Your task to perform on an android device: Search for Italian restaurants on Maps Image 0: 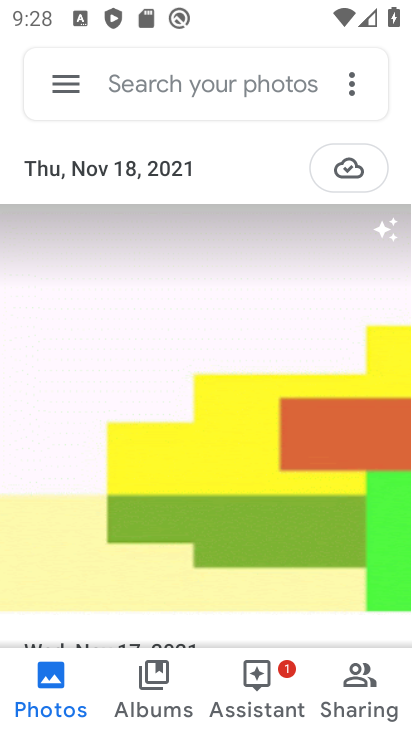
Step 0: press home button
Your task to perform on an android device: Search for Italian restaurants on Maps Image 1: 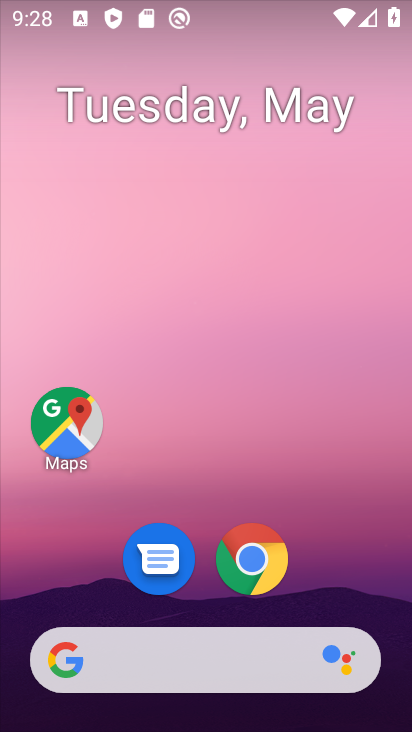
Step 1: click (92, 430)
Your task to perform on an android device: Search for Italian restaurants on Maps Image 2: 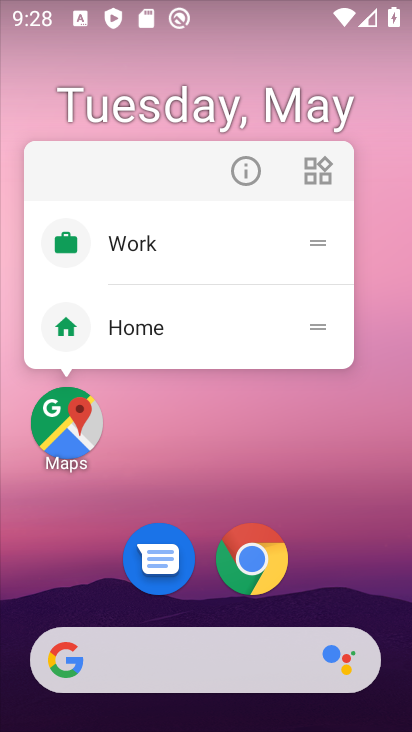
Step 2: click (85, 434)
Your task to perform on an android device: Search for Italian restaurants on Maps Image 3: 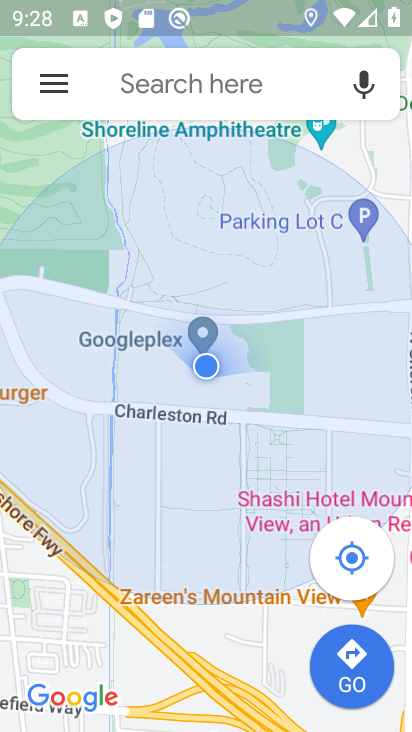
Step 3: click (258, 99)
Your task to perform on an android device: Search for Italian restaurants on Maps Image 4: 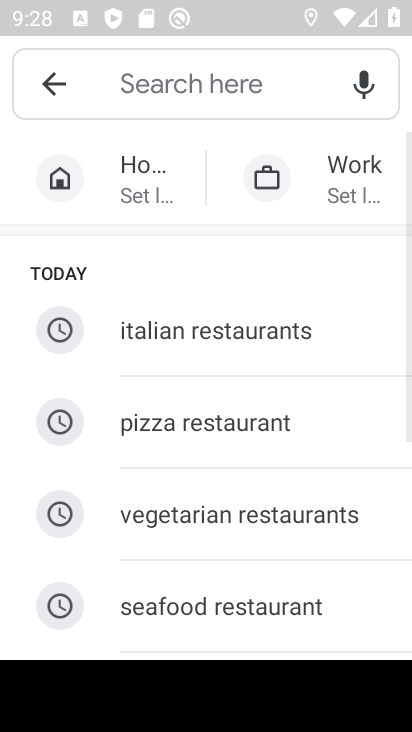
Step 4: click (282, 343)
Your task to perform on an android device: Search for Italian restaurants on Maps Image 5: 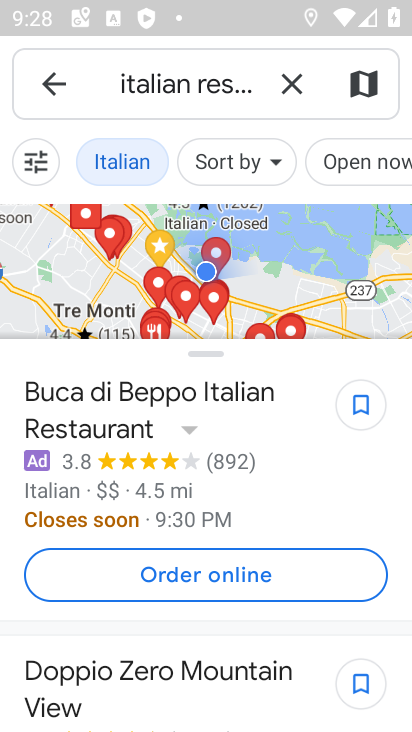
Step 5: task complete